Your task to perform on an android device: stop showing notifications on the lock screen Image 0: 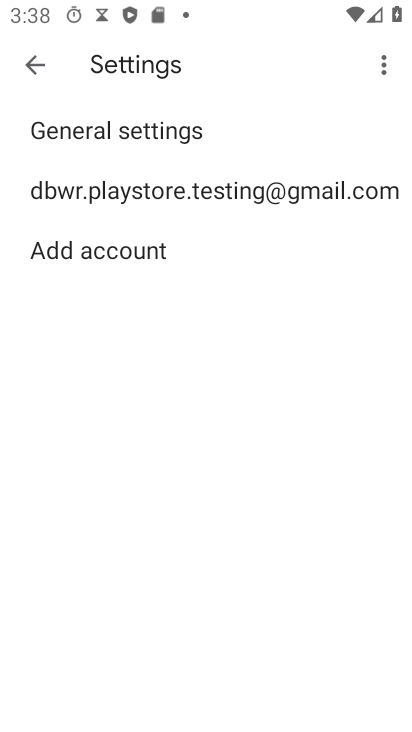
Step 0: click (143, 192)
Your task to perform on an android device: stop showing notifications on the lock screen Image 1: 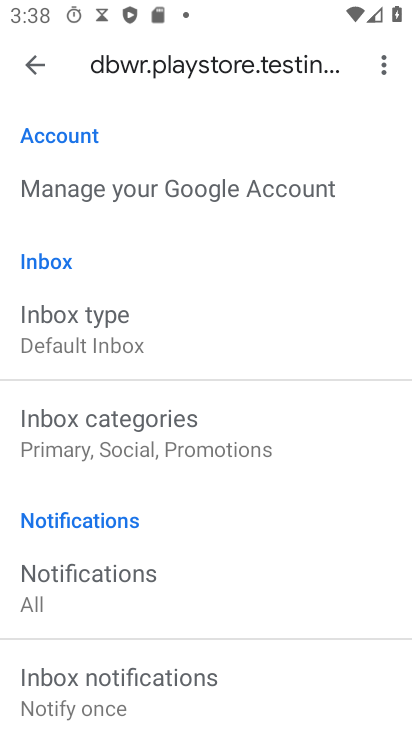
Step 1: drag from (110, 549) to (131, 161)
Your task to perform on an android device: stop showing notifications on the lock screen Image 2: 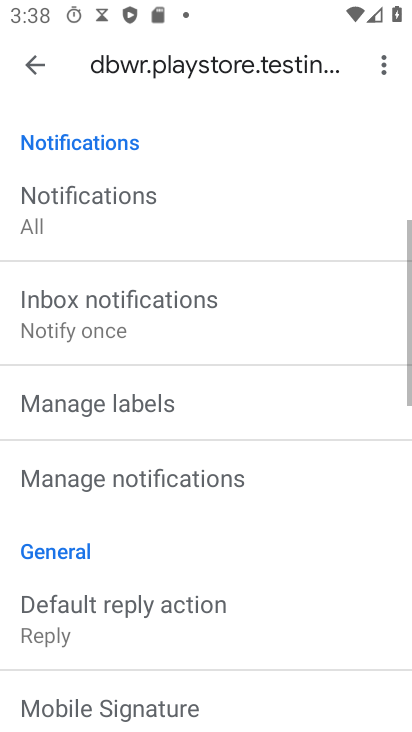
Step 2: drag from (176, 476) to (185, 213)
Your task to perform on an android device: stop showing notifications on the lock screen Image 3: 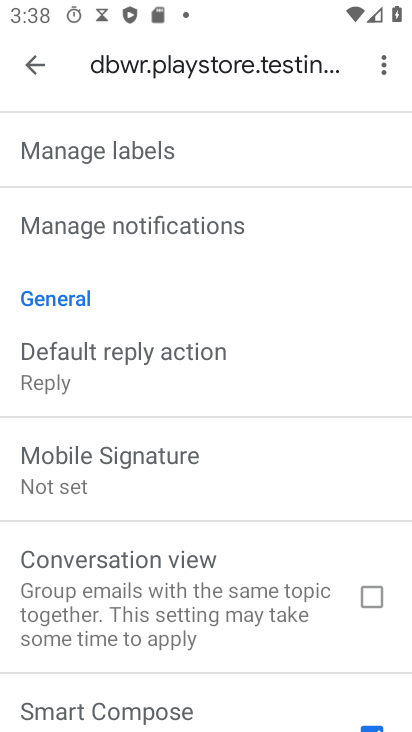
Step 3: drag from (117, 520) to (146, 618)
Your task to perform on an android device: stop showing notifications on the lock screen Image 4: 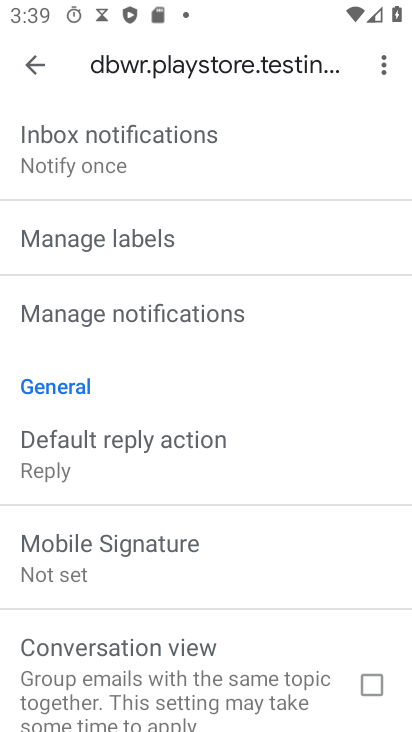
Step 4: press back button
Your task to perform on an android device: stop showing notifications on the lock screen Image 5: 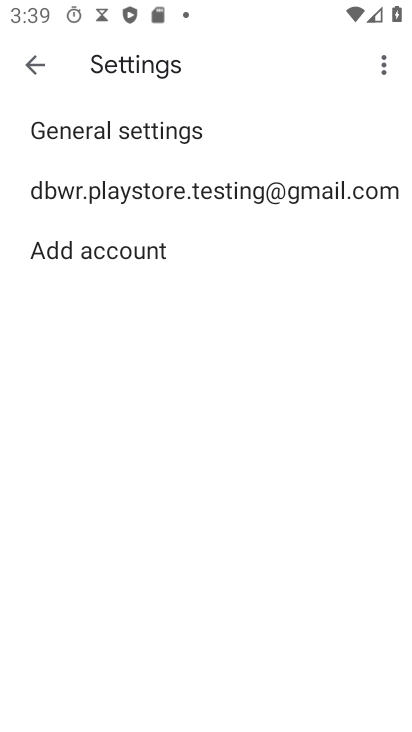
Step 5: click (41, 70)
Your task to perform on an android device: stop showing notifications on the lock screen Image 6: 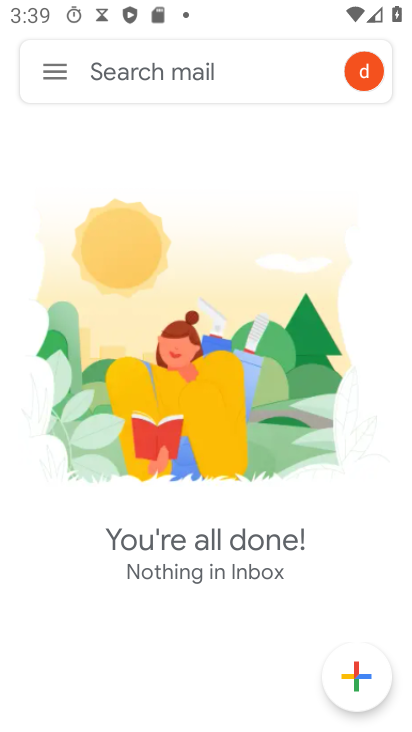
Step 6: press home button
Your task to perform on an android device: stop showing notifications on the lock screen Image 7: 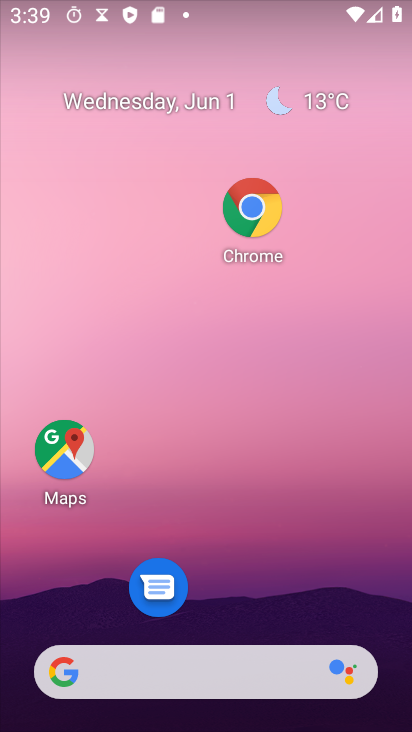
Step 7: drag from (220, 403) to (189, 136)
Your task to perform on an android device: stop showing notifications on the lock screen Image 8: 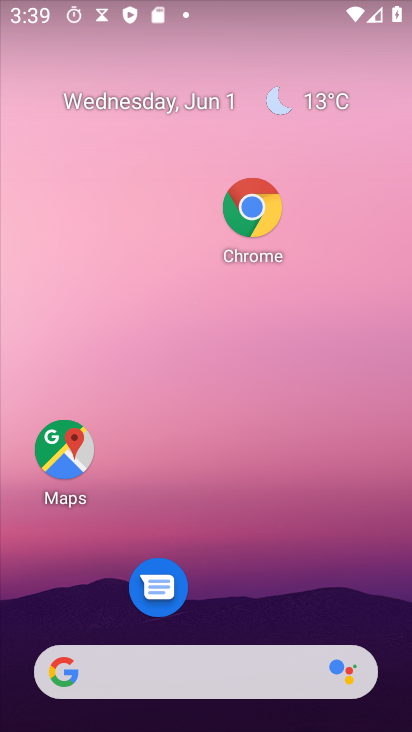
Step 8: click (187, 212)
Your task to perform on an android device: stop showing notifications on the lock screen Image 9: 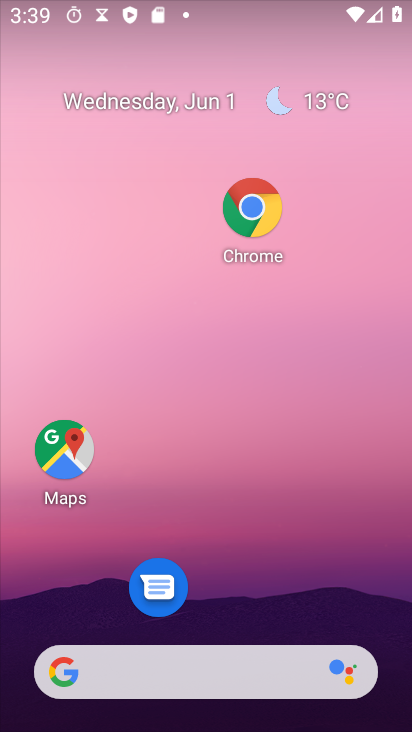
Step 9: drag from (223, 598) to (185, 244)
Your task to perform on an android device: stop showing notifications on the lock screen Image 10: 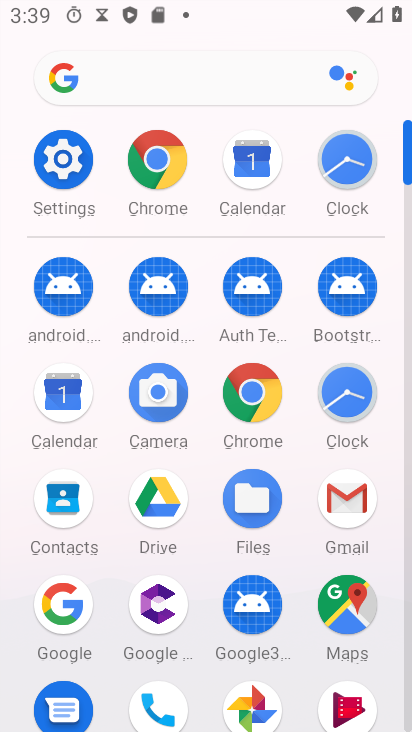
Step 10: drag from (267, 492) to (207, 162)
Your task to perform on an android device: stop showing notifications on the lock screen Image 11: 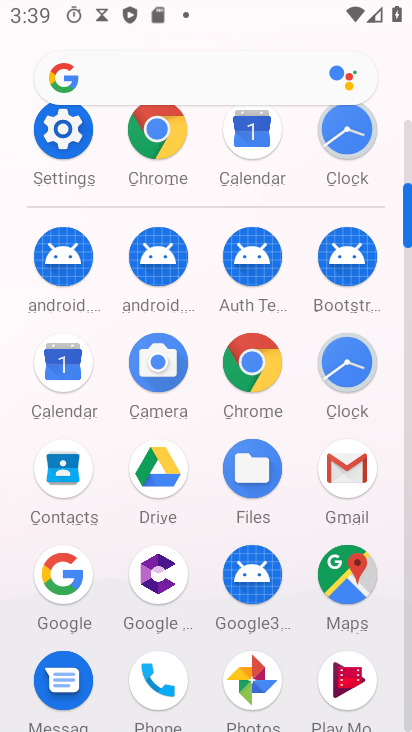
Step 11: click (50, 135)
Your task to perform on an android device: stop showing notifications on the lock screen Image 12: 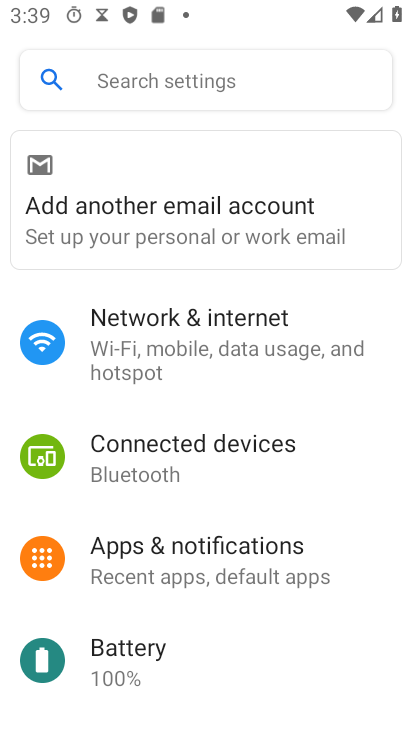
Step 12: click (154, 562)
Your task to perform on an android device: stop showing notifications on the lock screen Image 13: 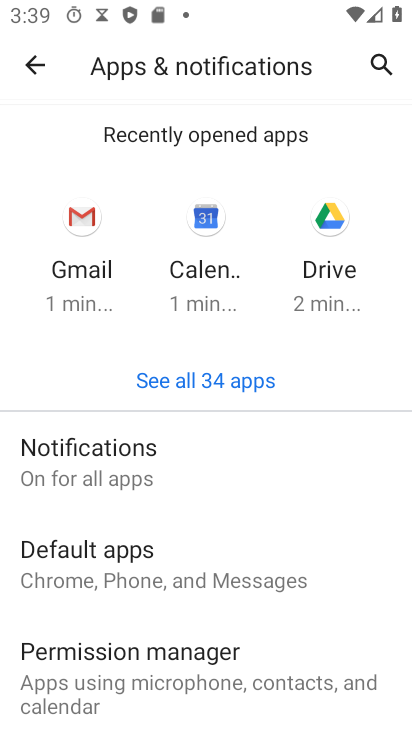
Step 13: drag from (137, 569) to (82, 365)
Your task to perform on an android device: stop showing notifications on the lock screen Image 14: 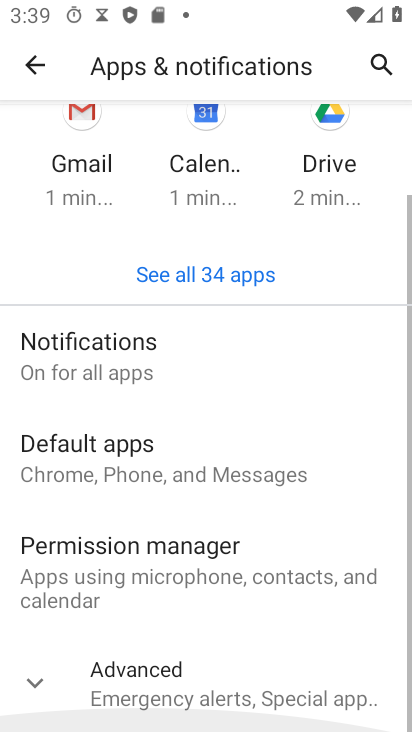
Step 14: click (97, 468)
Your task to perform on an android device: stop showing notifications on the lock screen Image 15: 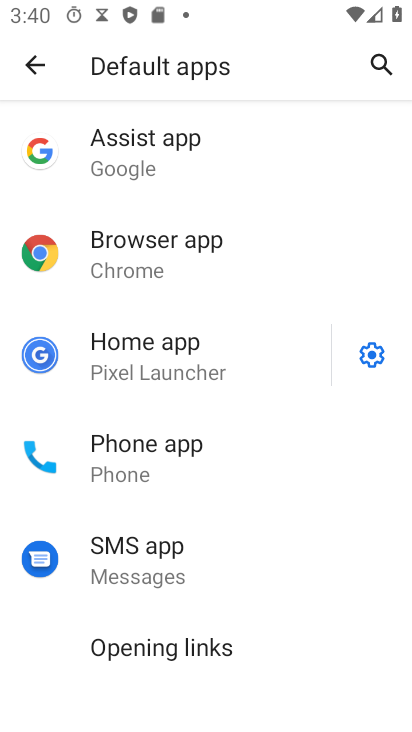
Step 15: click (29, 61)
Your task to perform on an android device: stop showing notifications on the lock screen Image 16: 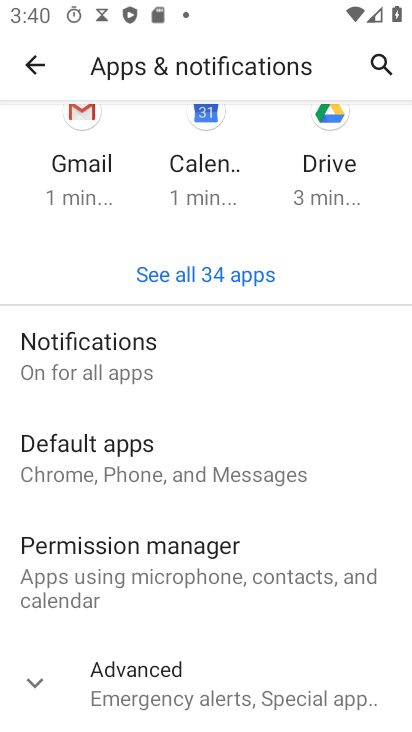
Step 16: click (94, 367)
Your task to perform on an android device: stop showing notifications on the lock screen Image 17: 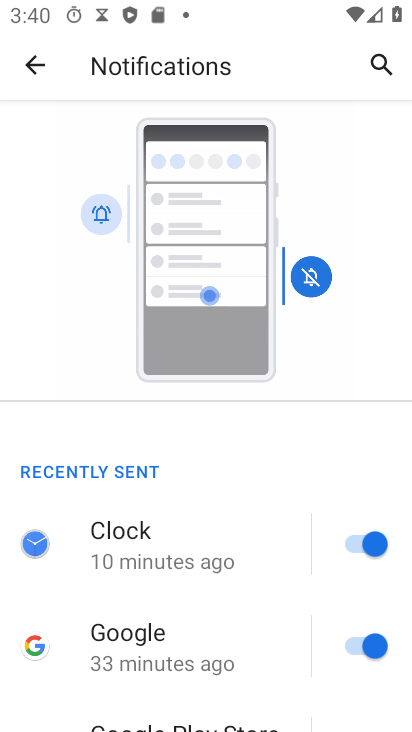
Step 17: click (187, 270)
Your task to perform on an android device: stop showing notifications on the lock screen Image 18: 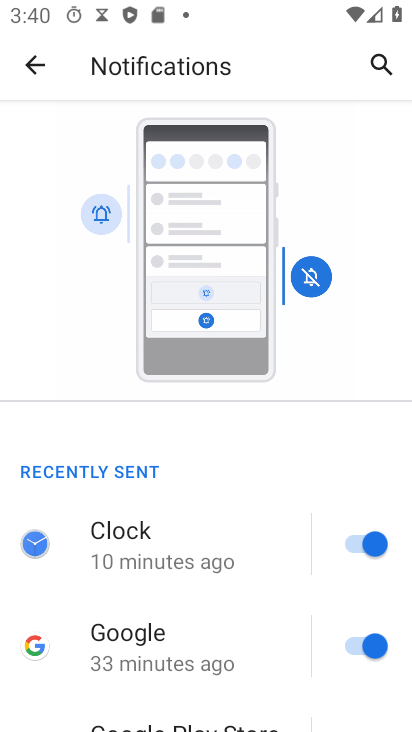
Step 18: drag from (192, 542) to (210, 243)
Your task to perform on an android device: stop showing notifications on the lock screen Image 19: 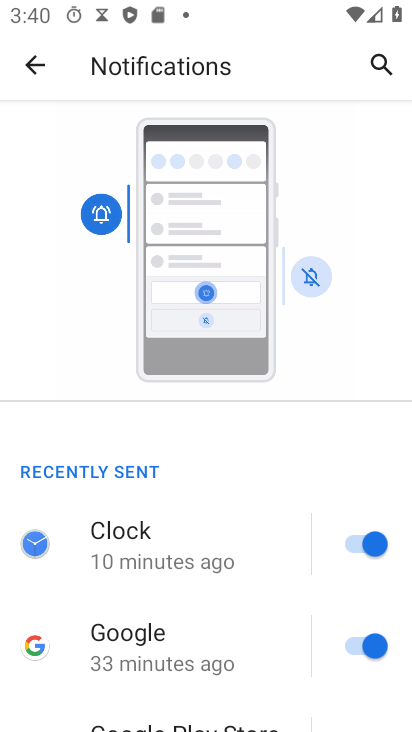
Step 19: click (218, 231)
Your task to perform on an android device: stop showing notifications on the lock screen Image 20: 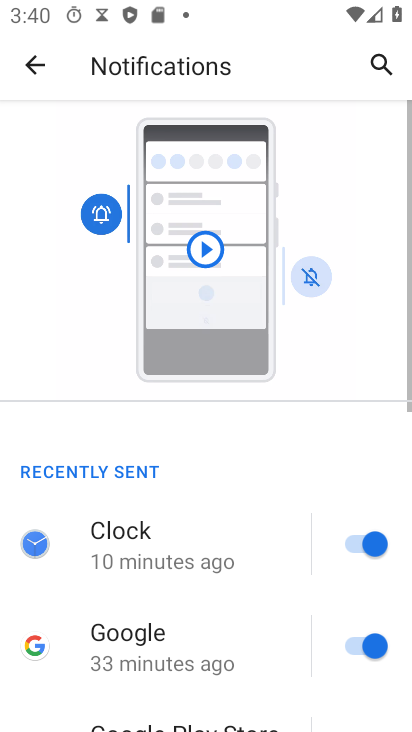
Step 20: click (172, 245)
Your task to perform on an android device: stop showing notifications on the lock screen Image 21: 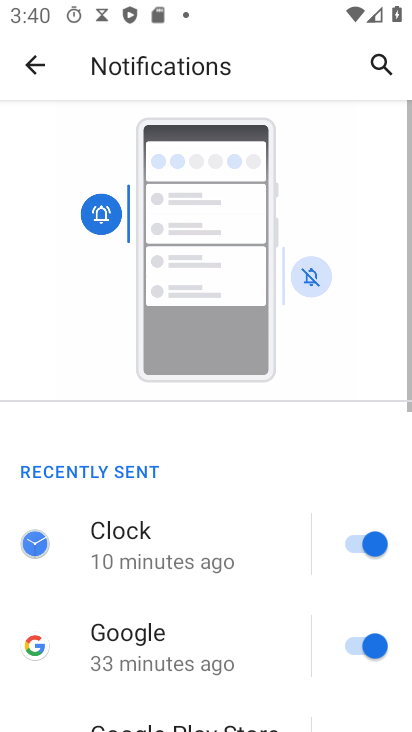
Step 21: drag from (157, 638) to (138, 248)
Your task to perform on an android device: stop showing notifications on the lock screen Image 22: 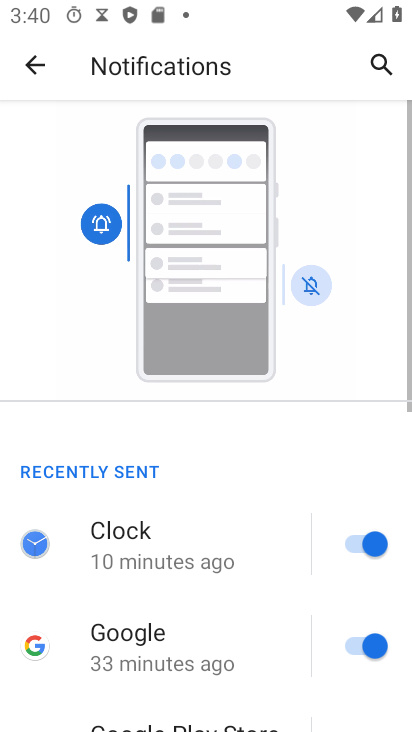
Step 22: drag from (289, 627) to (289, 269)
Your task to perform on an android device: stop showing notifications on the lock screen Image 23: 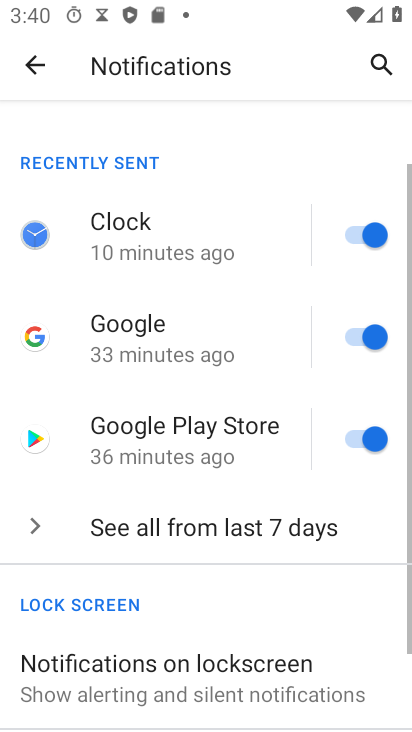
Step 23: drag from (283, 638) to (303, 137)
Your task to perform on an android device: stop showing notifications on the lock screen Image 24: 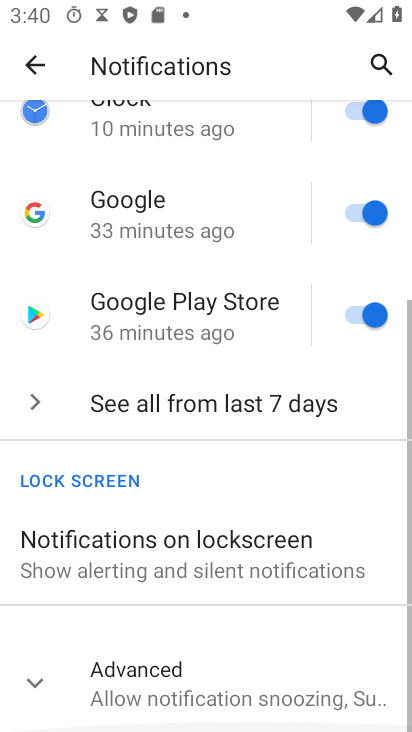
Step 24: drag from (201, 518) to (206, 255)
Your task to perform on an android device: stop showing notifications on the lock screen Image 25: 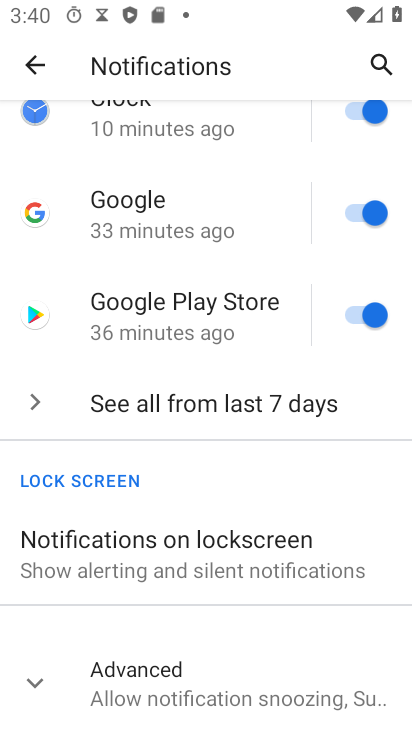
Step 25: click (140, 539)
Your task to perform on an android device: stop showing notifications on the lock screen Image 26: 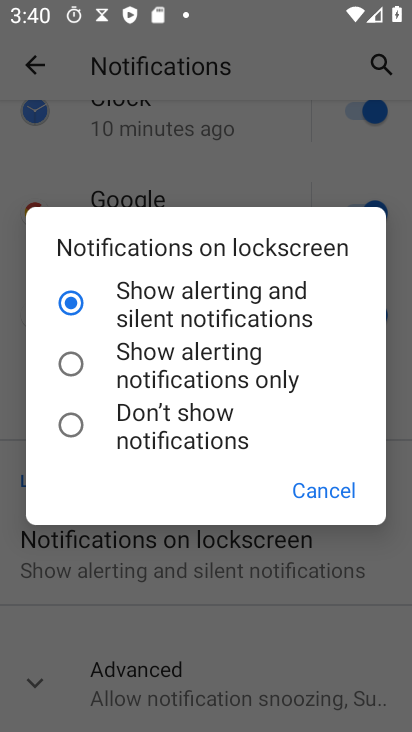
Step 26: click (66, 410)
Your task to perform on an android device: stop showing notifications on the lock screen Image 27: 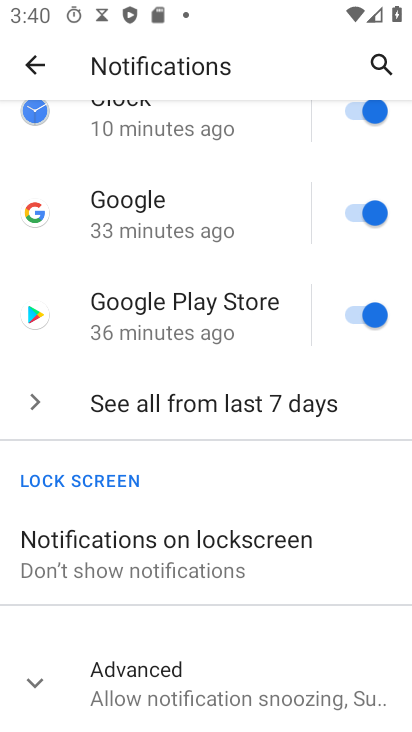
Step 27: task complete